Your task to perform on an android device: change the clock style Image 0: 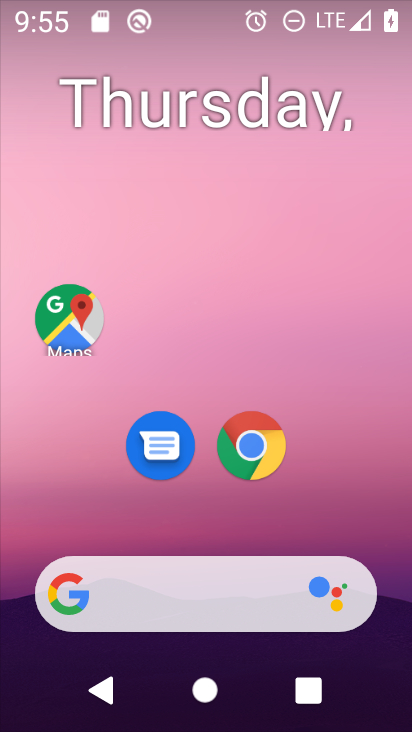
Step 0: click (376, 618)
Your task to perform on an android device: change the clock style Image 1: 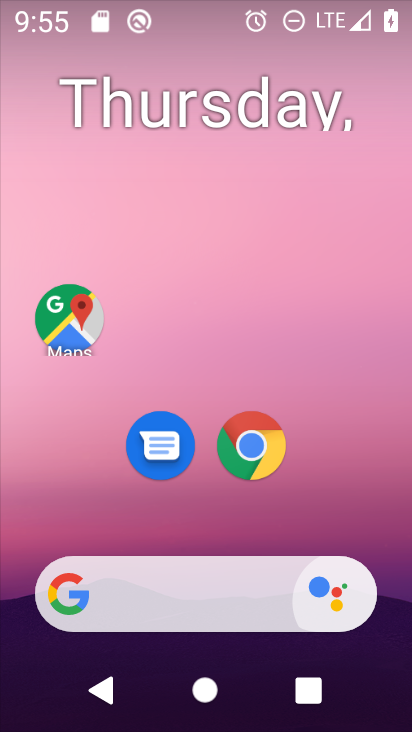
Step 1: drag from (387, 500) to (384, 266)
Your task to perform on an android device: change the clock style Image 2: 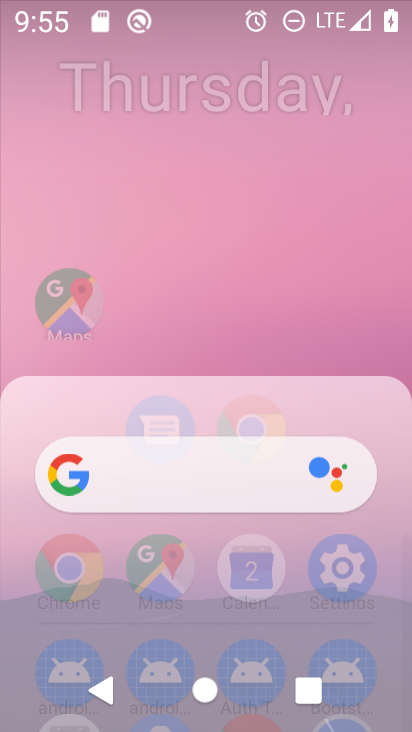
Step 2: click (354, 116)
Your task to perform on an android device: change the clock style Image 3: 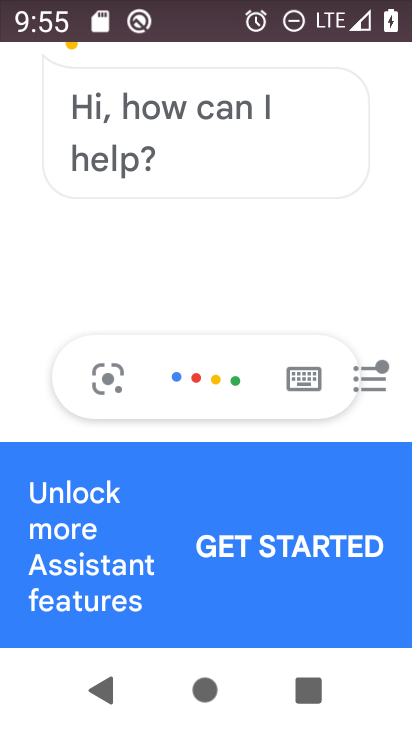
Step 3: press home button
Your task to perform on an android device: change the clock style Image 4: 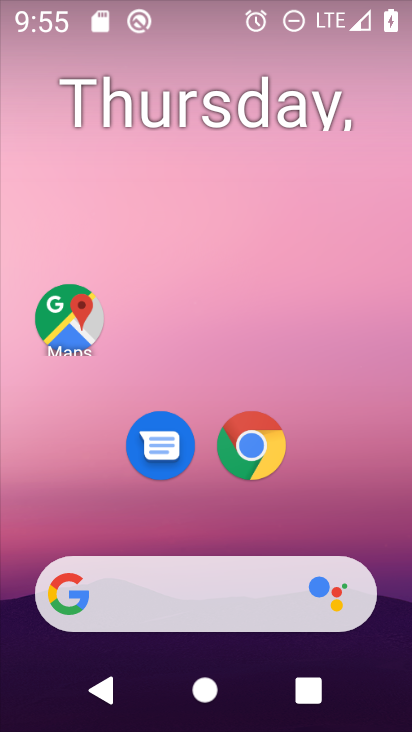
Step 4: drag from (388, 626) to (328, 33)
Your task to perform on an android device: change the clock style Image 5: 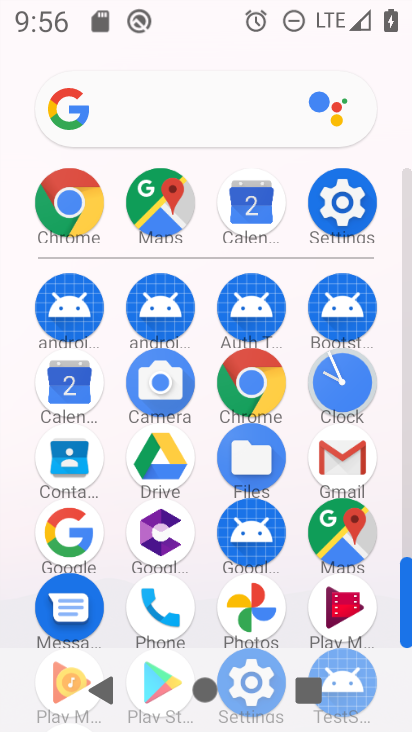
Step 5: click (340, 404)
Your task to perform on an android device: change the clock style Image 6: 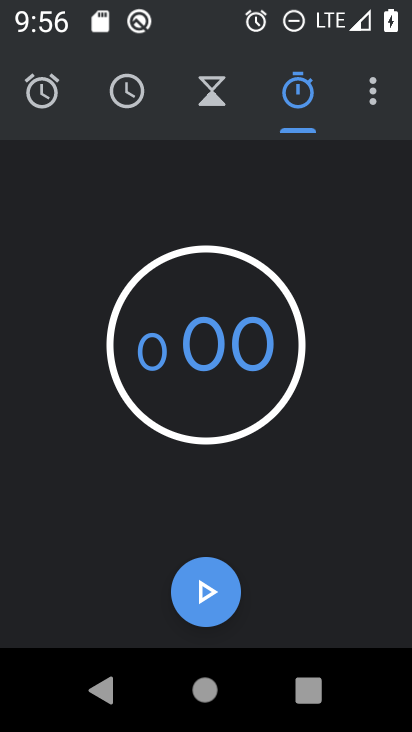
Step 6: click (372, 84)
Your task to perform on an android device: change the clock style Image 7: 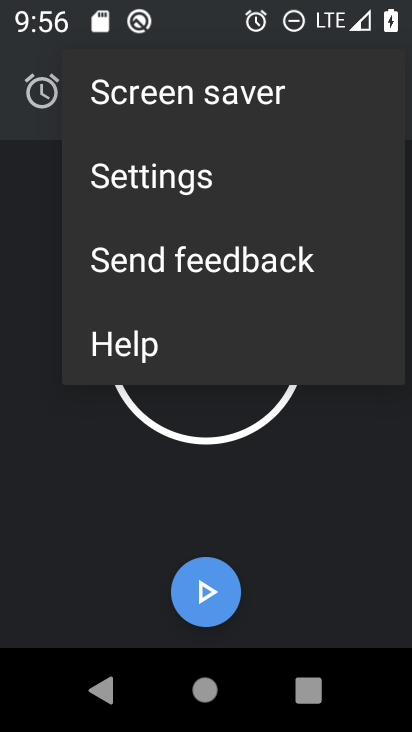
Step 7: click (204, 174)
Your task to perform on an android device: change the clock style Image 8: 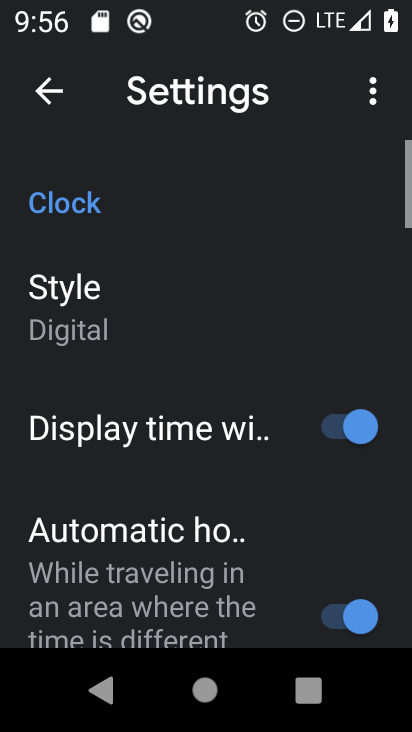
Step 8: click (171, 312)
Your task to perform on an android device: change the clock style Image 9: 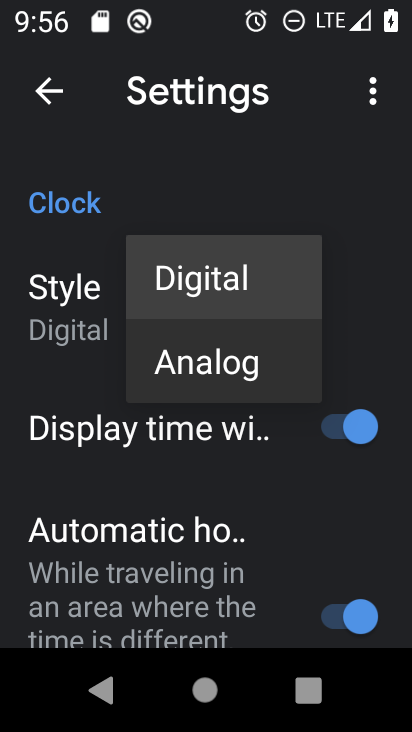
Step 9: click (222, 367)
Your task to perform on an android device: change the clock style Image 10: 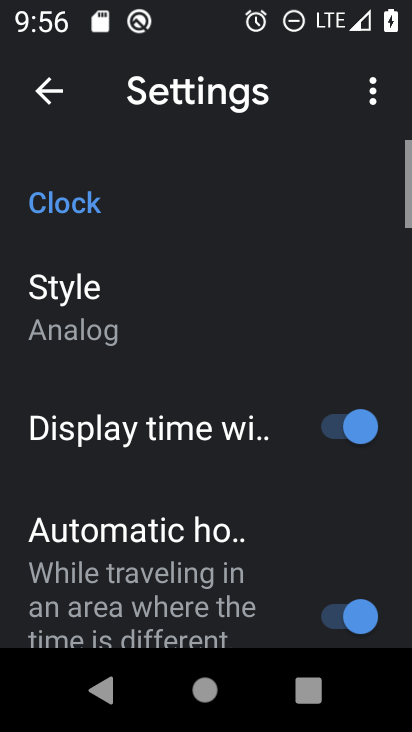
Step 10: task complete